Your task to perform on an android device: clear all cookies in the chrome app Image 0: 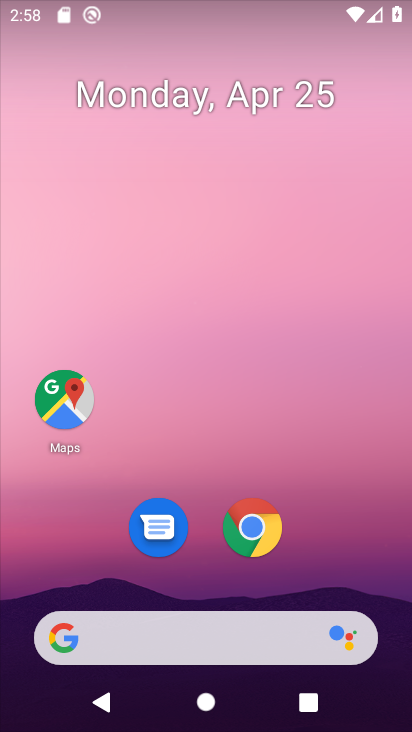
Step 0: click (253, 527)
Your task to perform on an android device: clear all cookies in the chrome app Image 1: 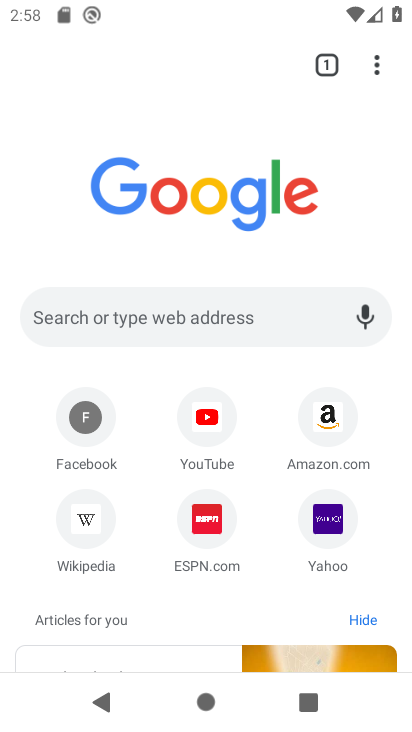
Step 1: click (373, 70)
Your task to perform on an android device: clear all cookies in the chrome app Image 2: 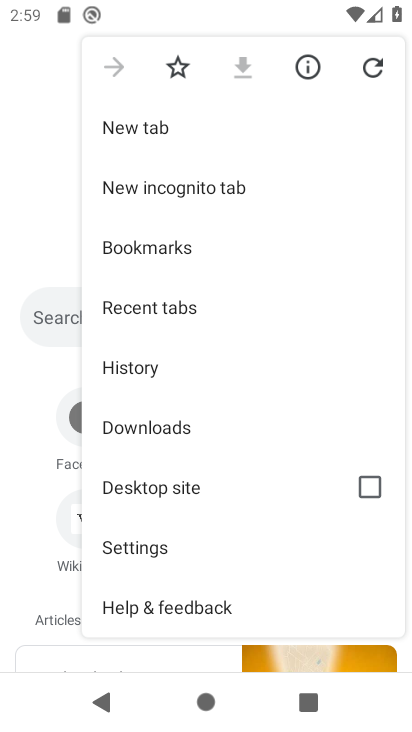
Step 2: click (136, 370)
Your task to perform on an android device: clear all cookies in the chrome app Image 3: 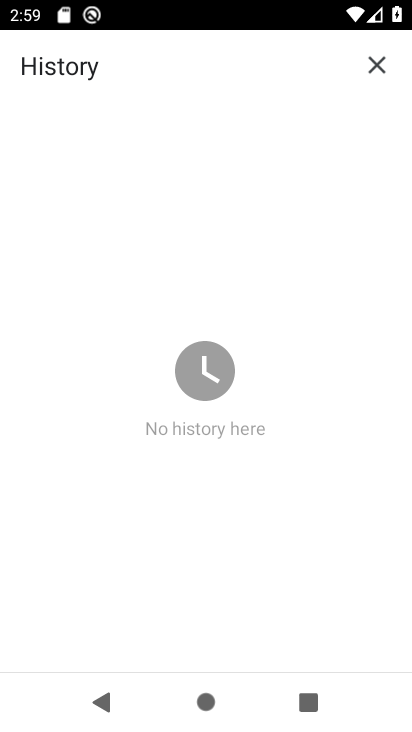
Step 3: task complete